Your task to perform on an android device: turn notification dots on Image 0: 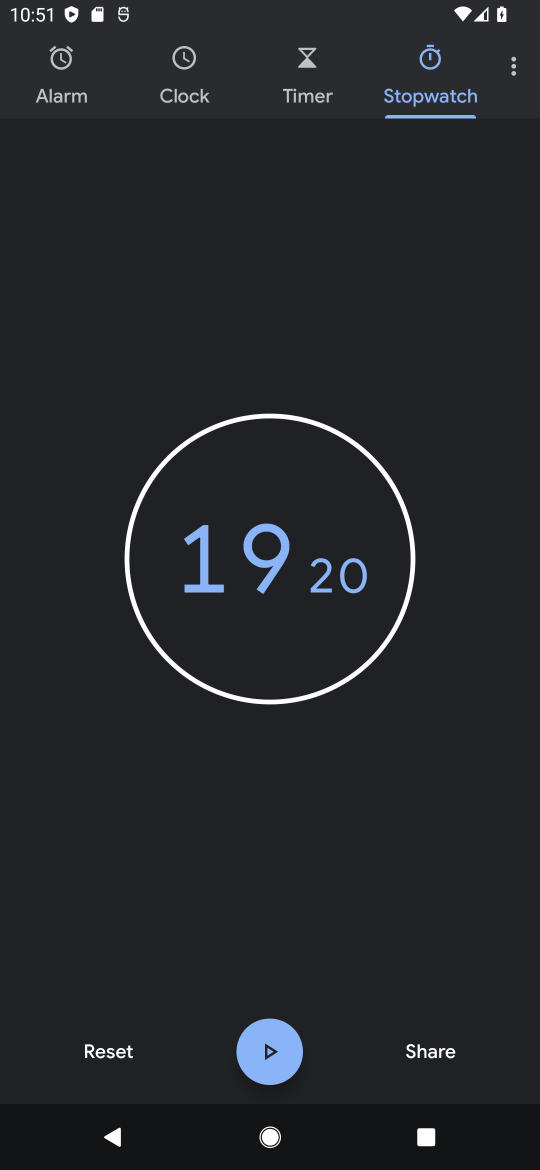
Step 0: press home button
Your task to perform on an android device: turn notification dots on Image 1: 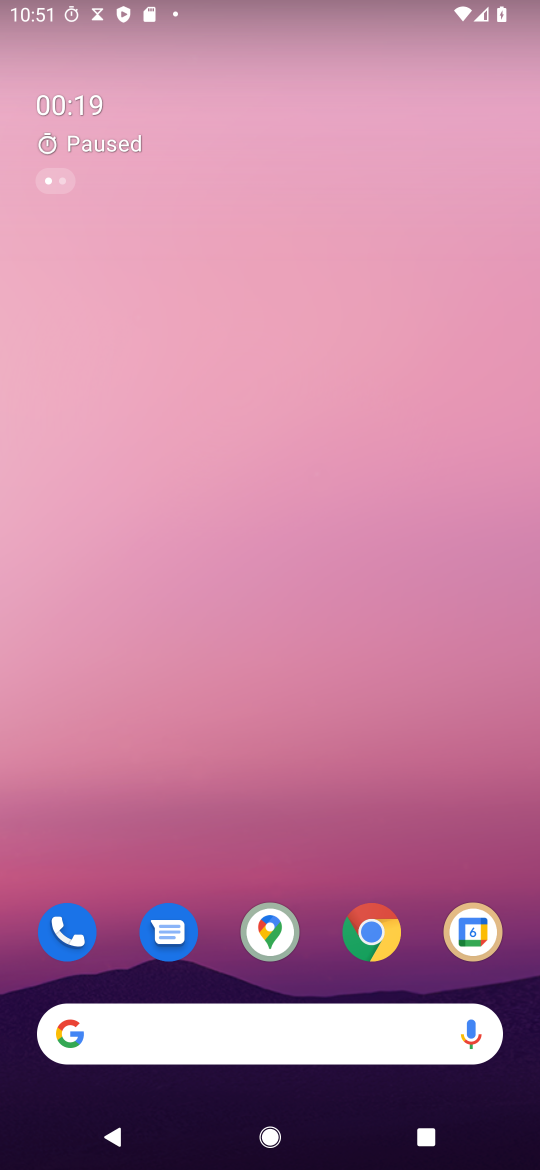
Step 1: drag from (180, 1037) to (347, 142)
Your task to perform on an android device: turn notification dots on Image 2: 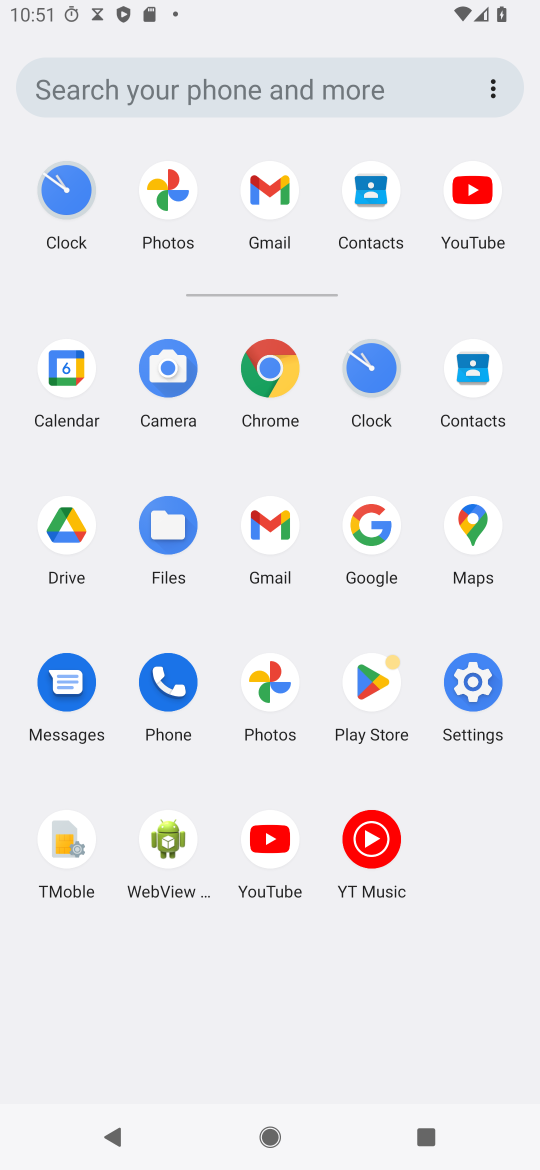
Step 2: click (473, 680)
Your task to perform on an android device: turn notification dots on Image 3: 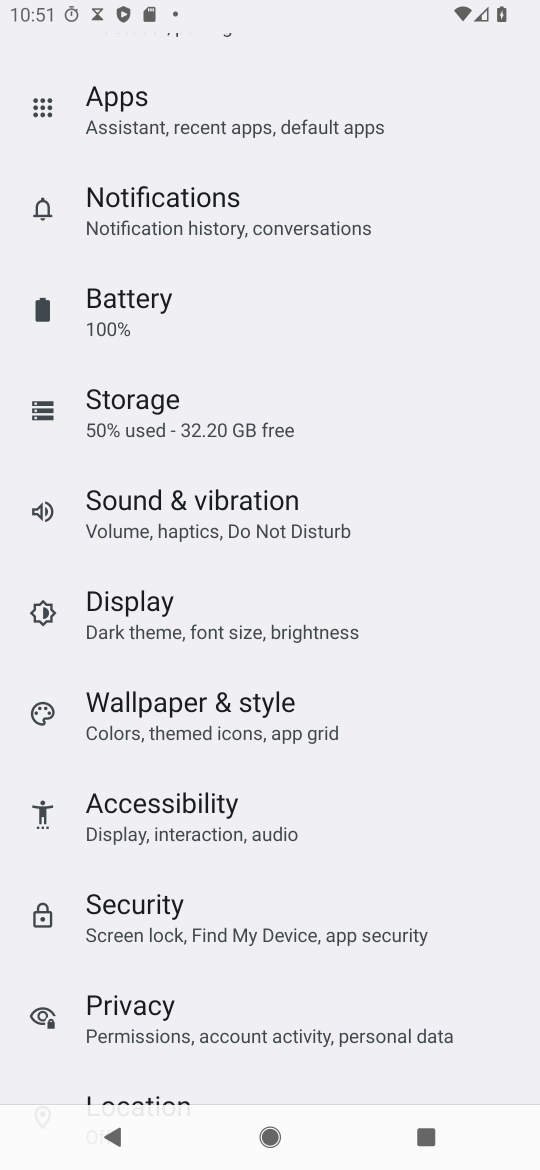
Step 3: click (184, 204)
Your task to perform on an android device: turn notification dots on Image 4: 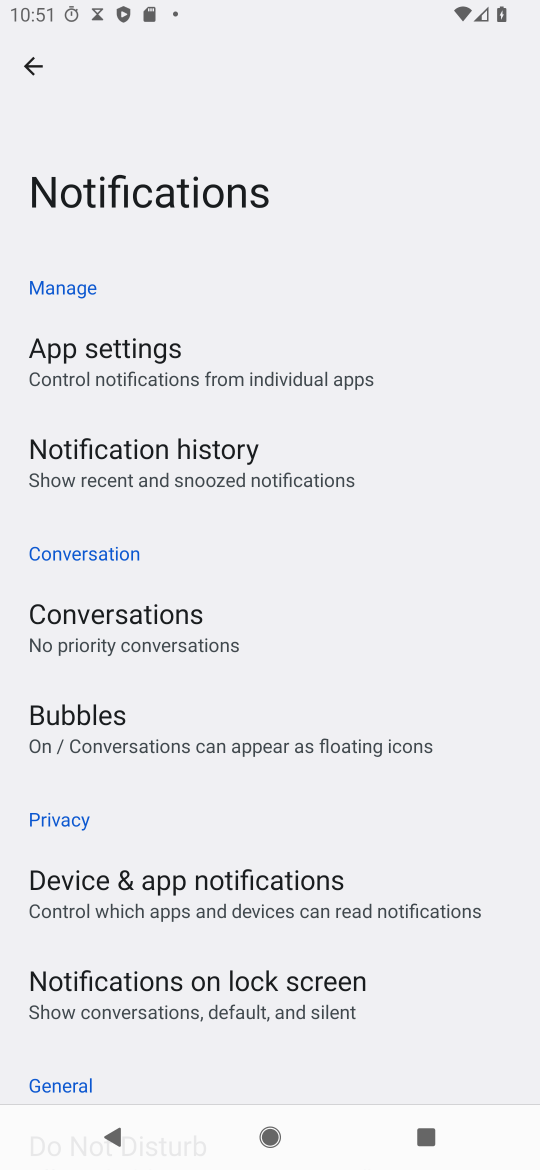
Step 4: task complete